Your task to perform on an android device: Show me popular games on the Play Store Image 0: 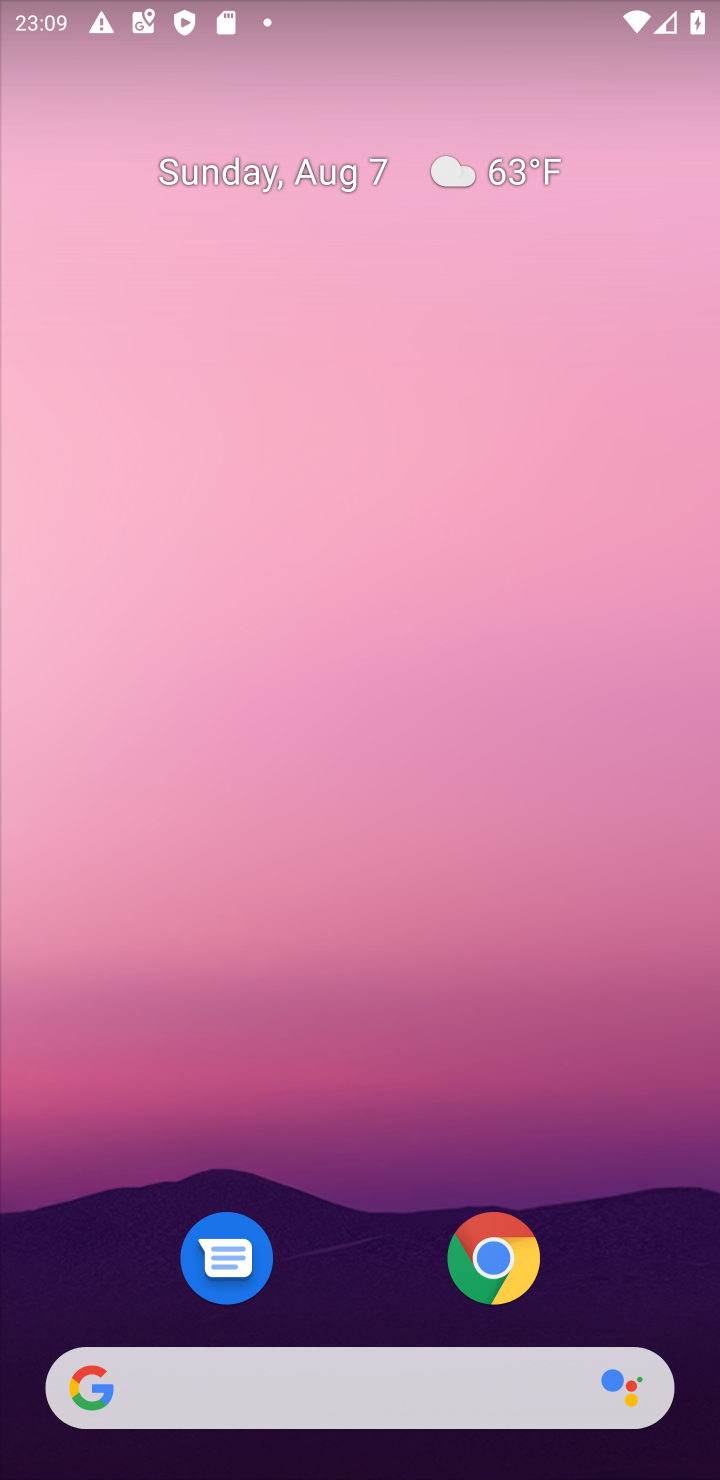
Step 0: drag from (349, 1269) to (247, 1)
Your task to perform on an android device: Show me popular games on the Play Store Image 1: 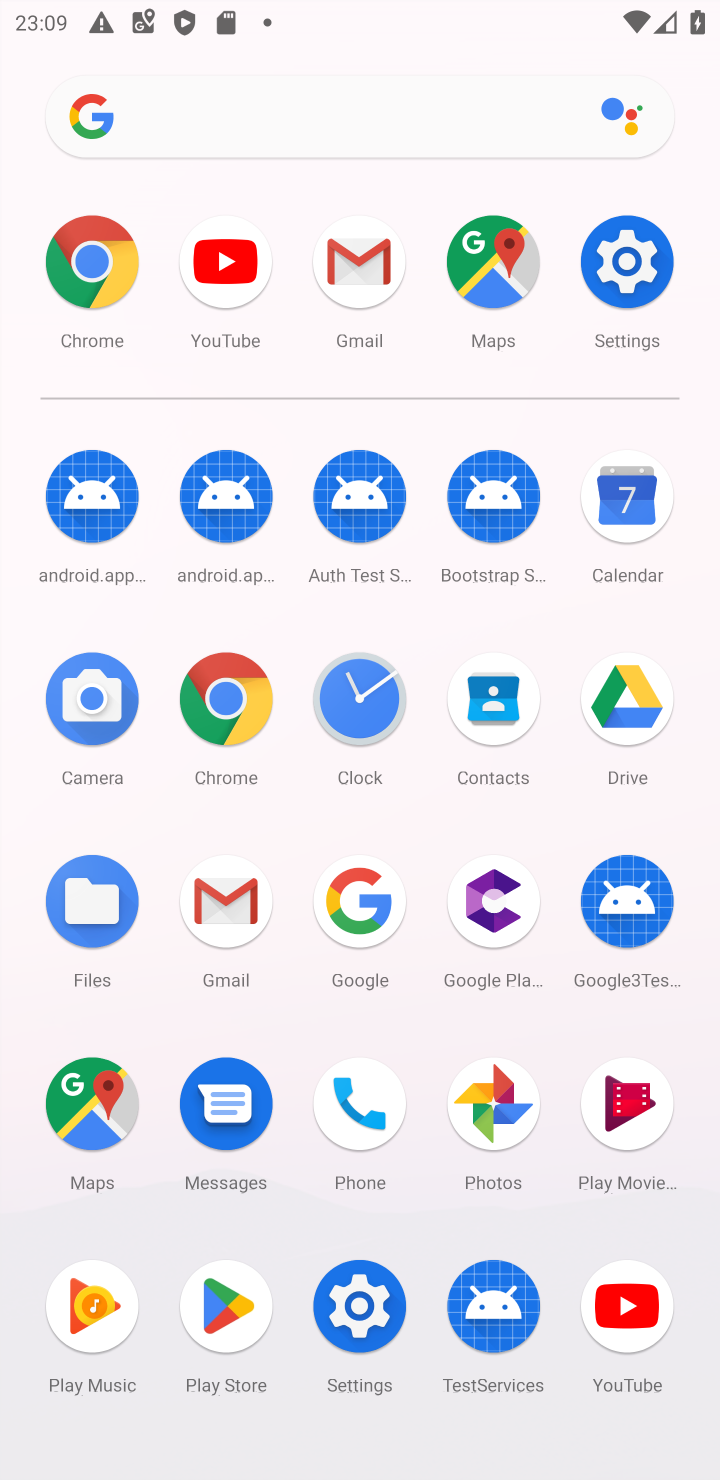
Step 1: click (208, 1297)
Your task to perform on an android device: Show me popular games on the Play Store Image 2: 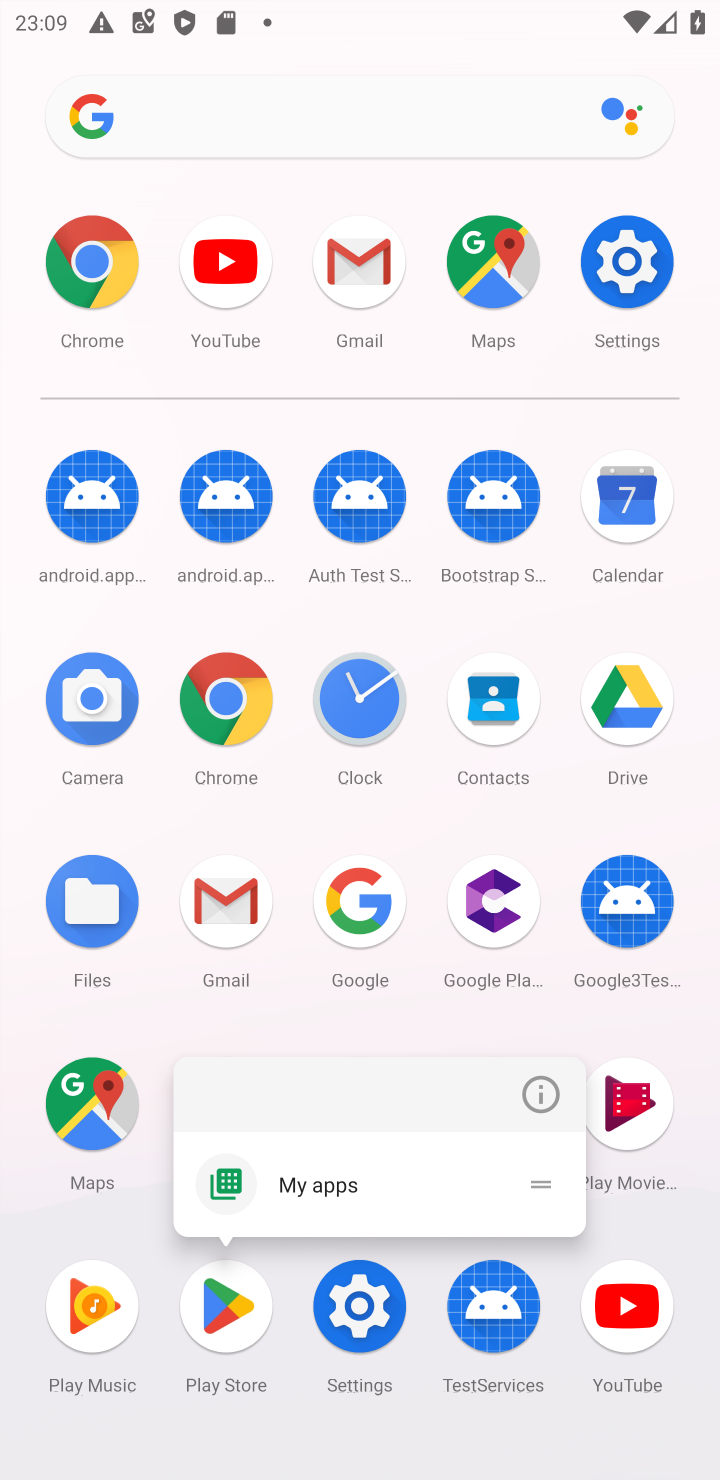
Step 2: click (223, 1311)
Your task to perform on an android device: Show me popular games on the Play Store Image 3: 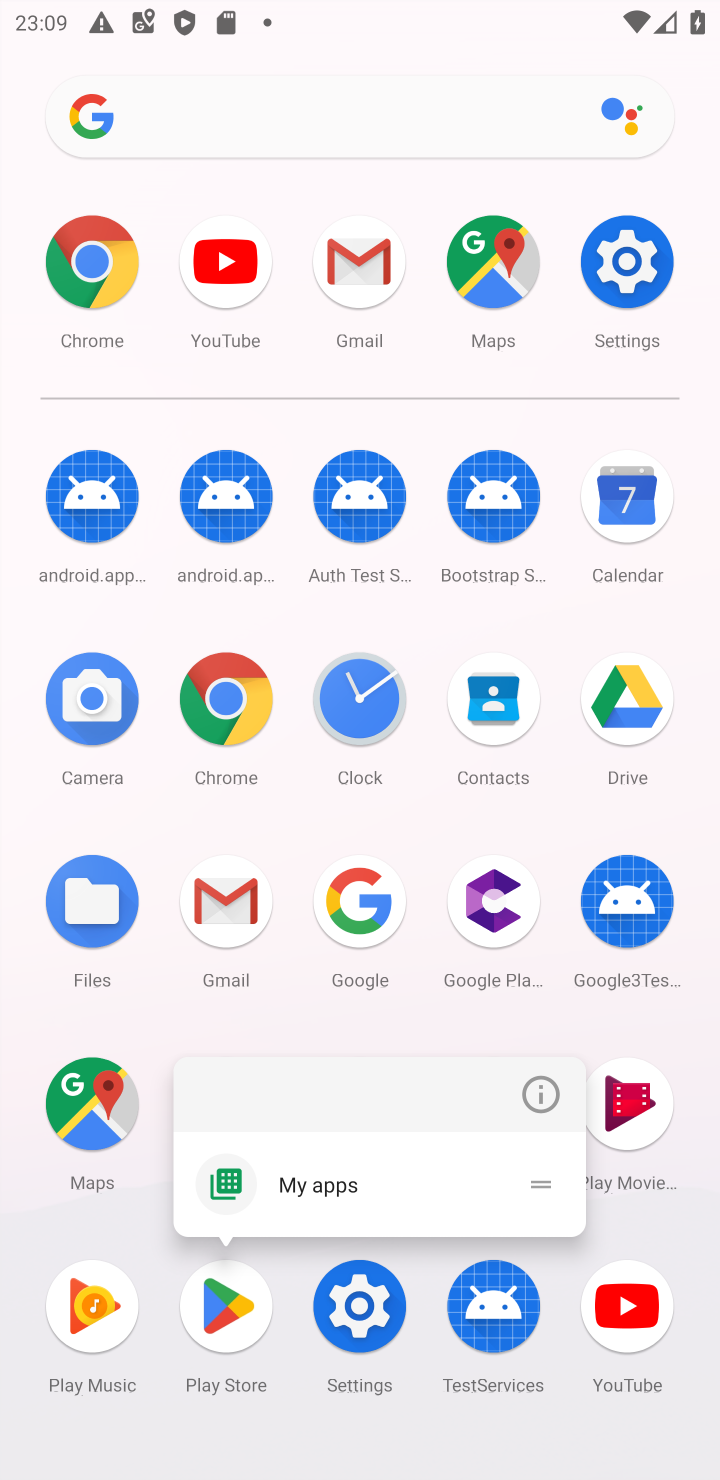
Step 3: click (223, 1311)
Your task to perform on an android device: Show me popular games on the Play Store Image 4: 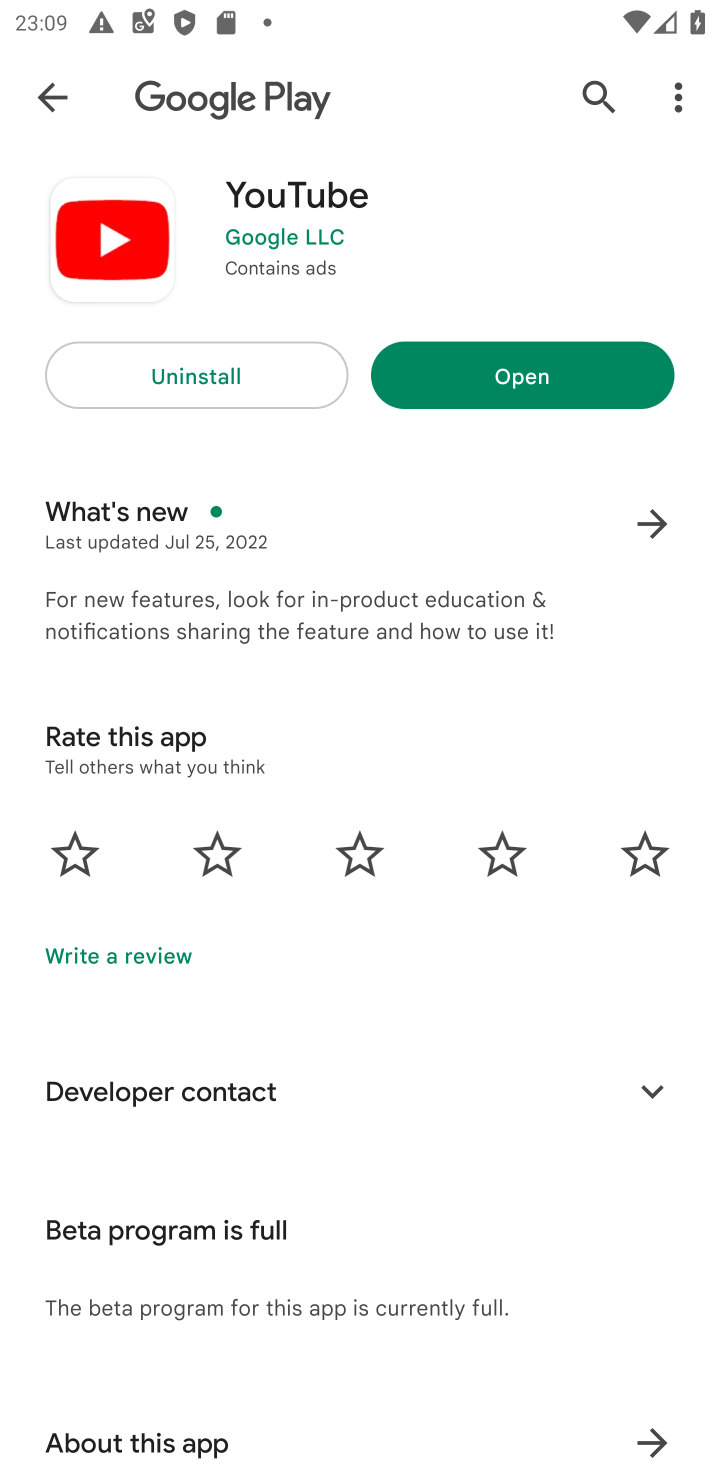
Step 4: click (41, 88)
Your task to perform on an android device: Show me popular games on the Play Store Image 5: 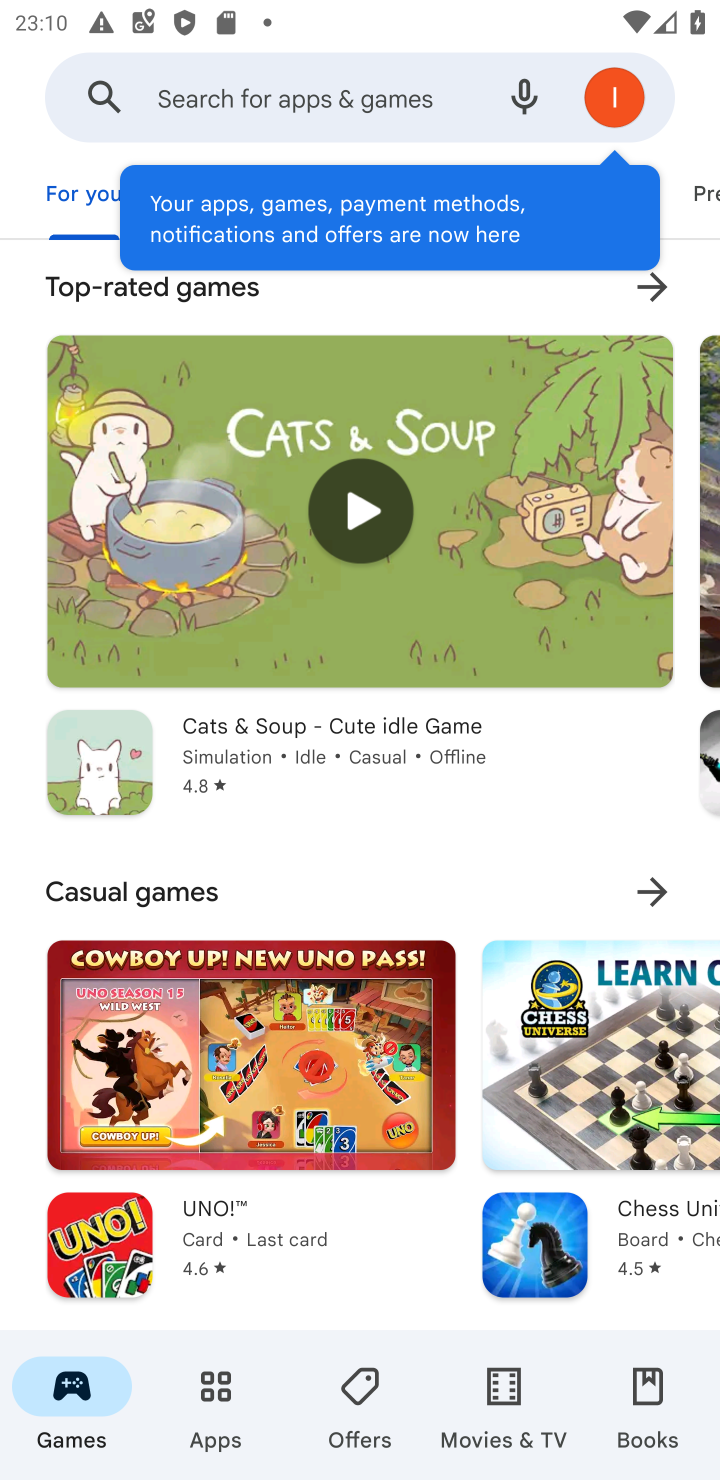
Step 5: click (389, 115)
Your task to perform on an android device: Show me popular games on the Play Store Image 6: 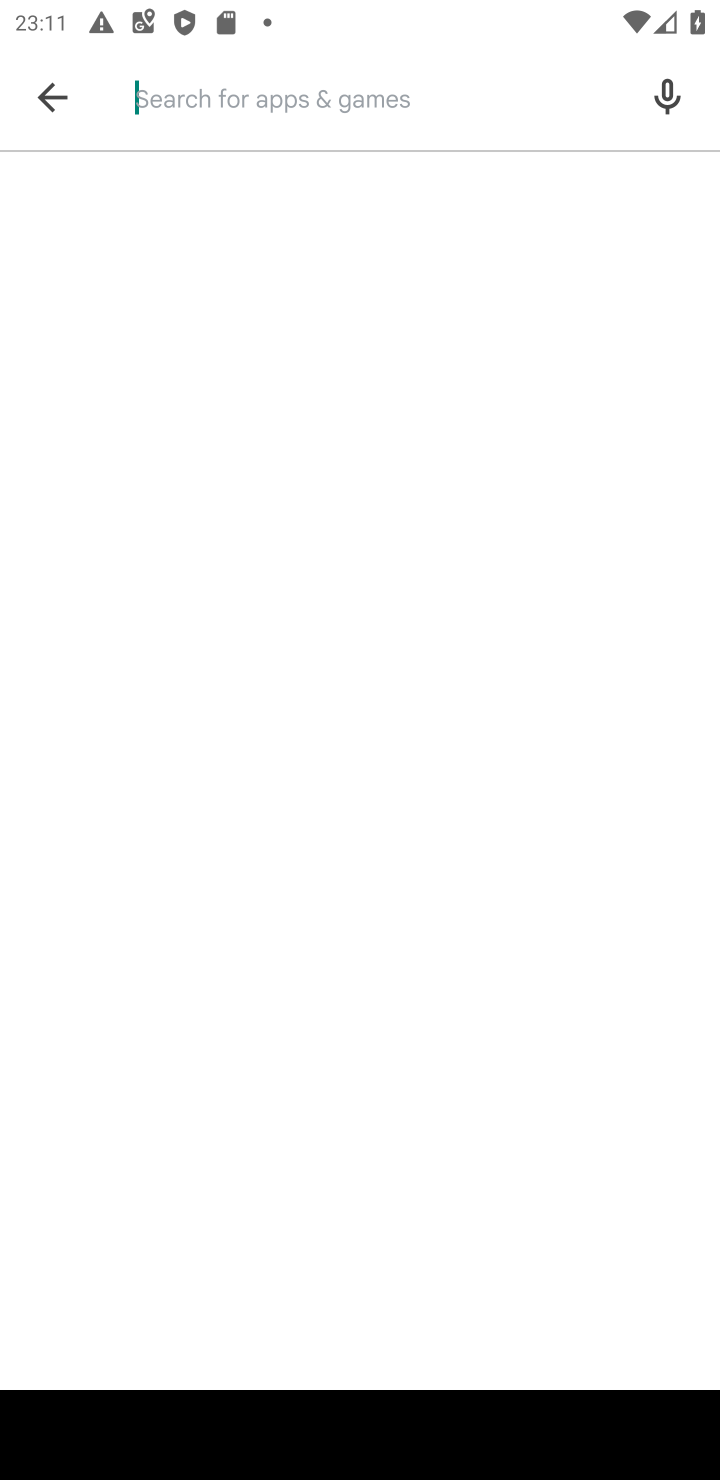
Step 6: type "popular games "
Your task to perform on an android device: Show me popular games on the Play Store Image 7: 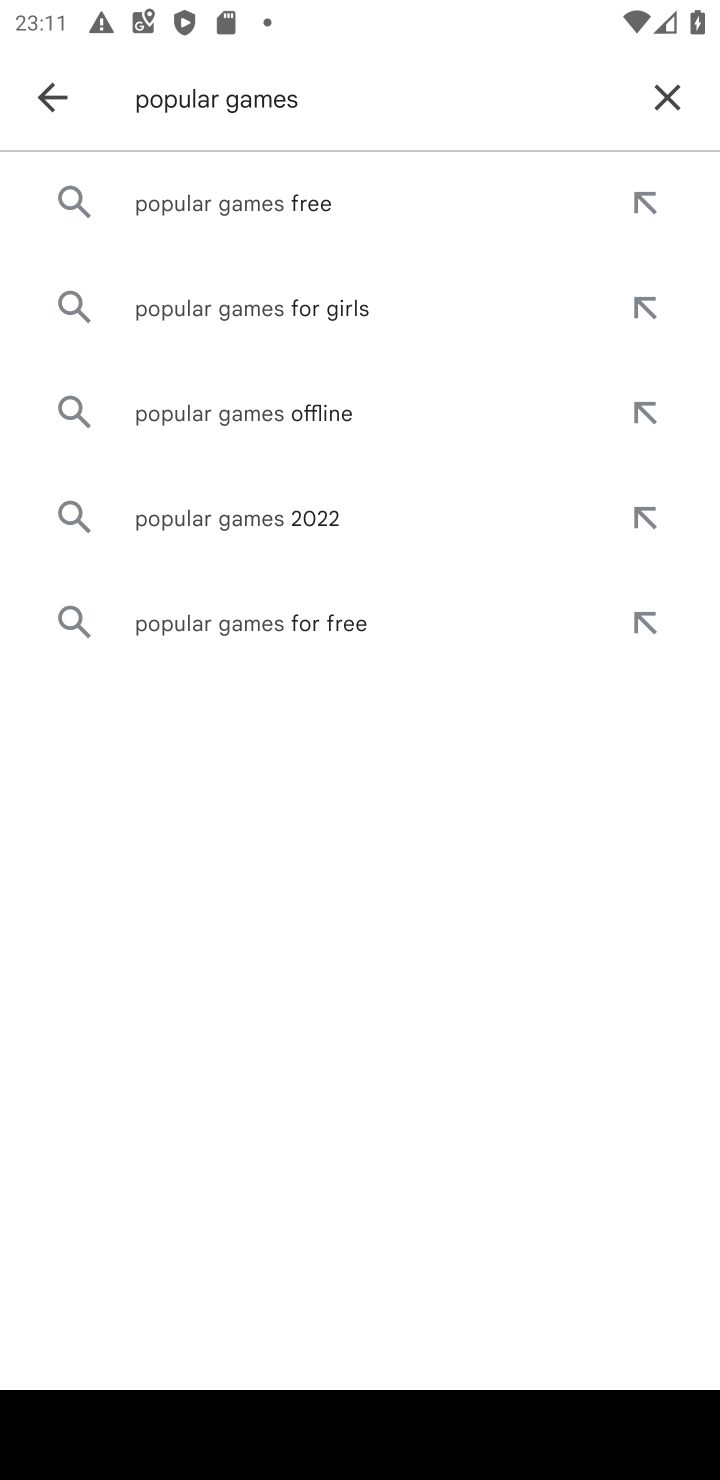
Step 7: click (201, 180)
Your task to perform on an android device: Show me popular games on the Play Store Image 8: 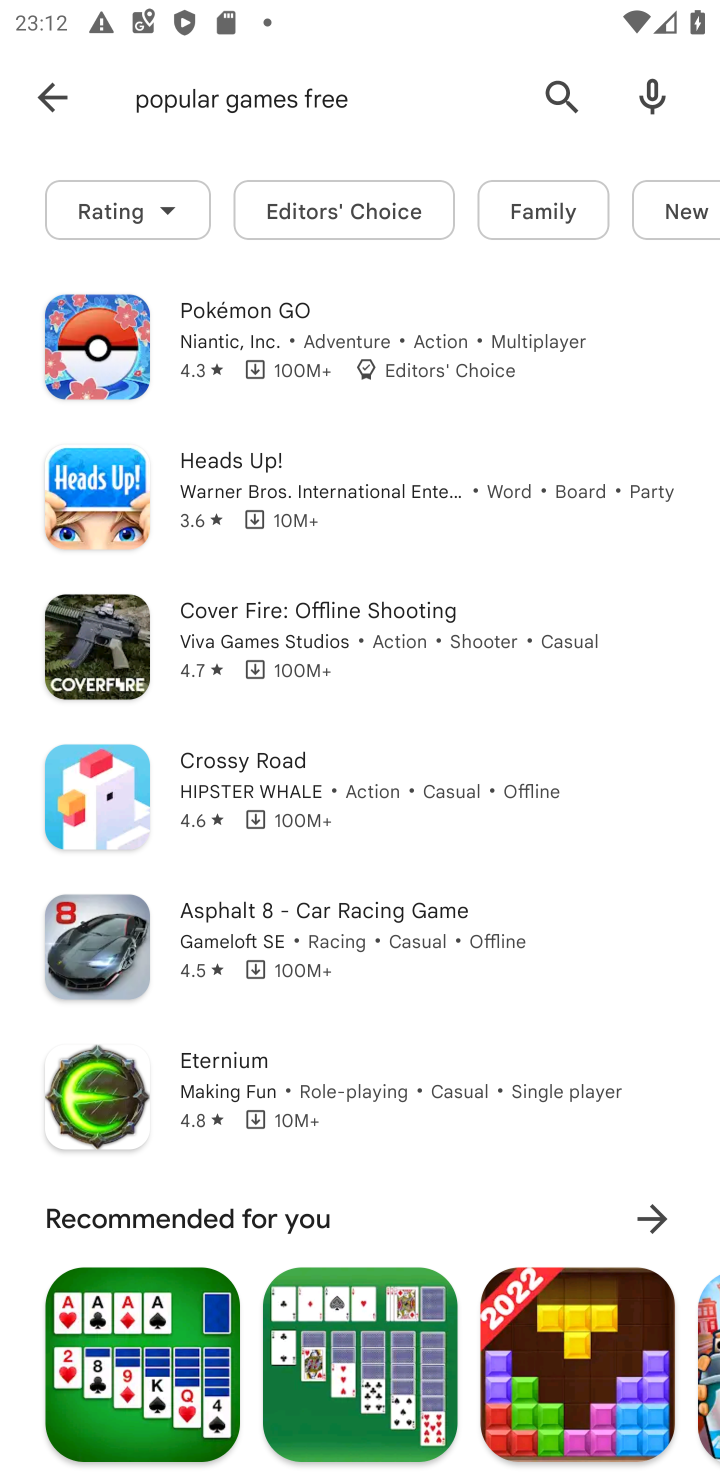
Step 8: task complete